Your task to perform on an android device: open a bookmark in the chrome app Image 0: 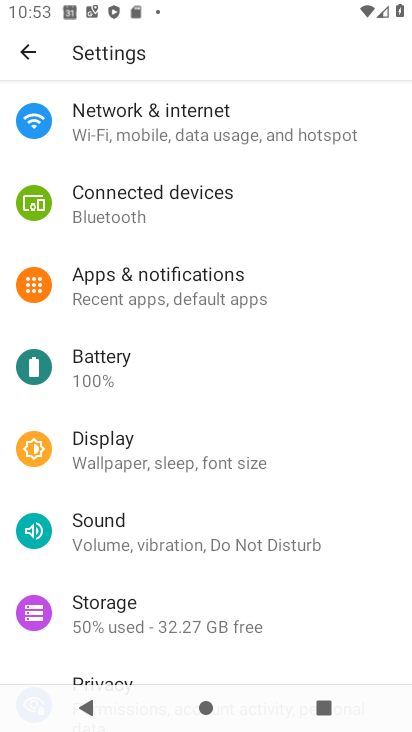
Step 0: press home button
Your task to perform on an android device: open a bookmark in the chrome app Image 1: 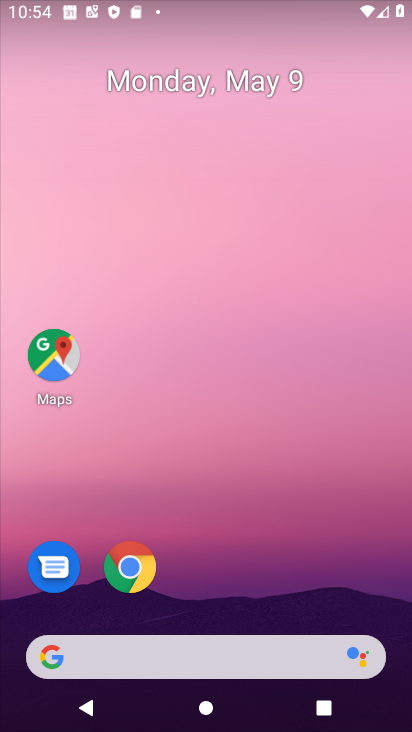
Step 1: click (113, 585)
Your task to perform on an android device: open a bookmark in the chrome app Image 2: 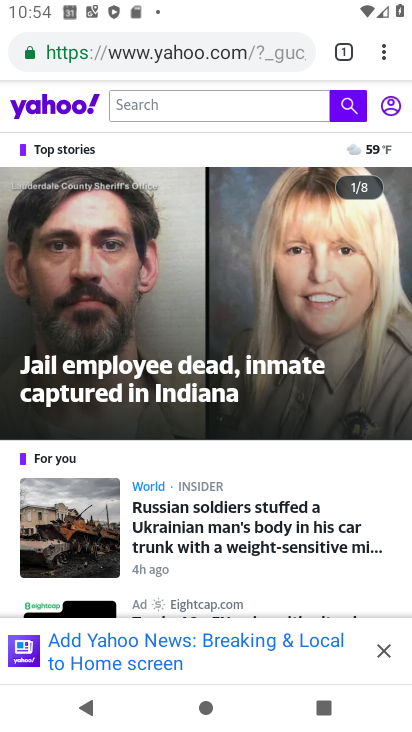
Step 2: drag from (378, 67) to (241, 202)
Your task to perform on an android device: open a bookmark in the chrome app Image 3: 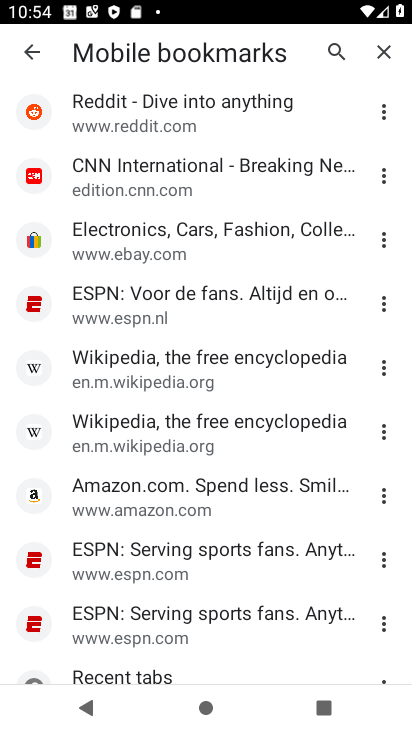
Step 3: click (145, 418)
Your task to perform on an android device: open a bookmark in the chrome app Image 4: 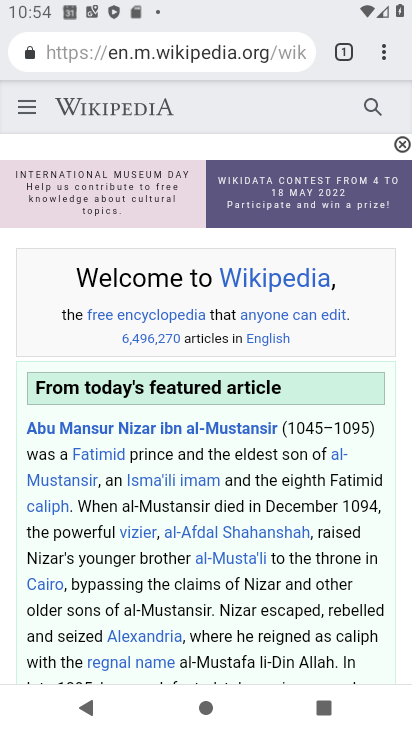
Step 4: task complete